Your task to perform on an android device: Go to privacy settings Image 0: 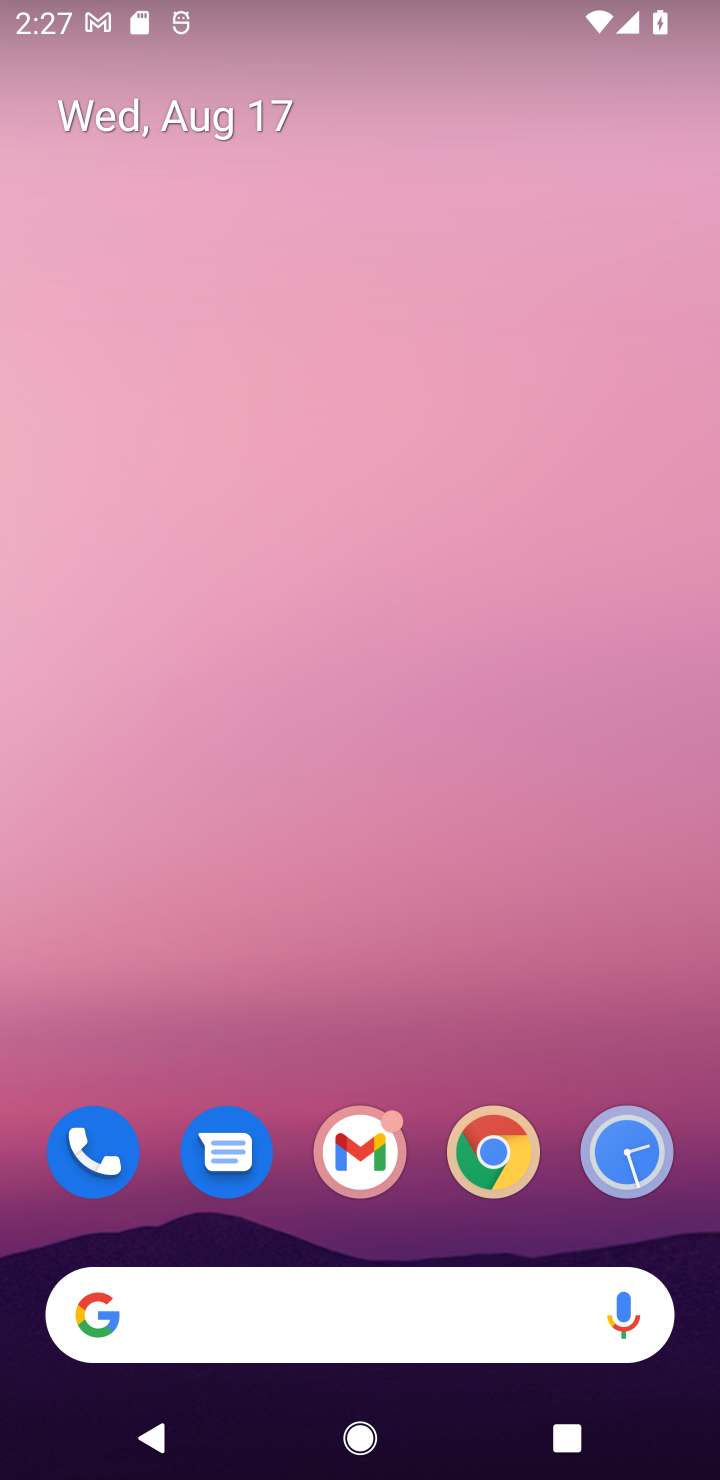
Step 0: drag from (575, 1192) to (291, 72)
Your task to perform on an android device: Go to privacy settings Image 1: 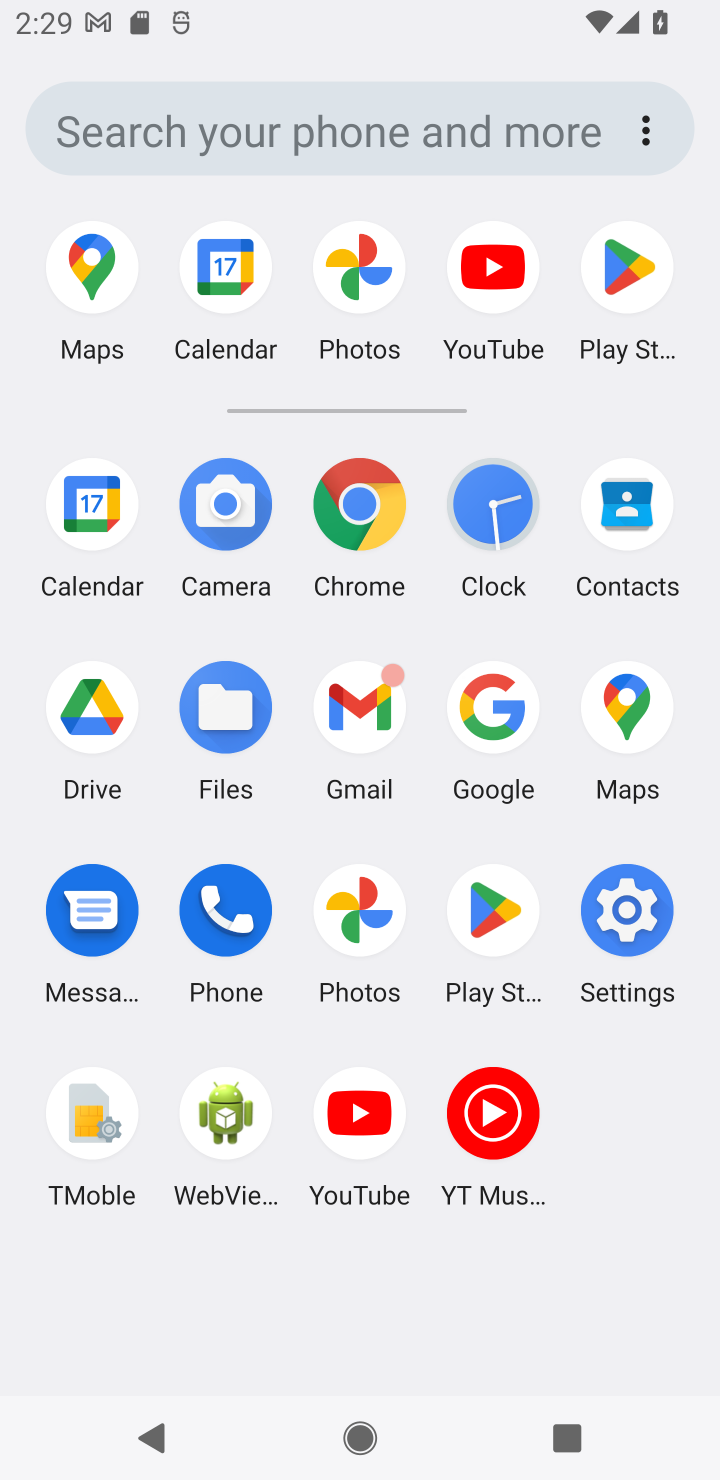
Step 1: click (631, 936)
Your task to perform on an android device: Go to privacy settings Image 2: 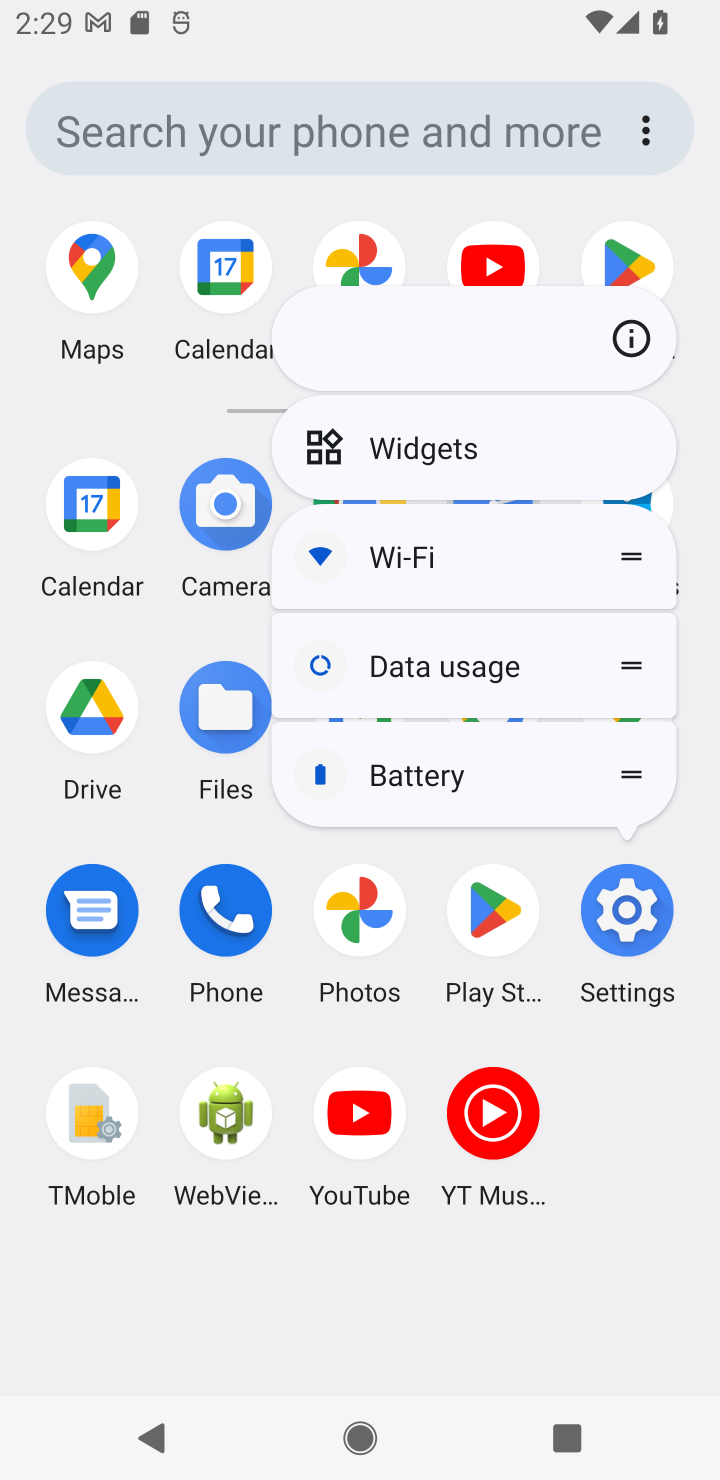
Step 2: click (640, 939)
Your task to perform on an android device: Go to privacy settings Image 3: 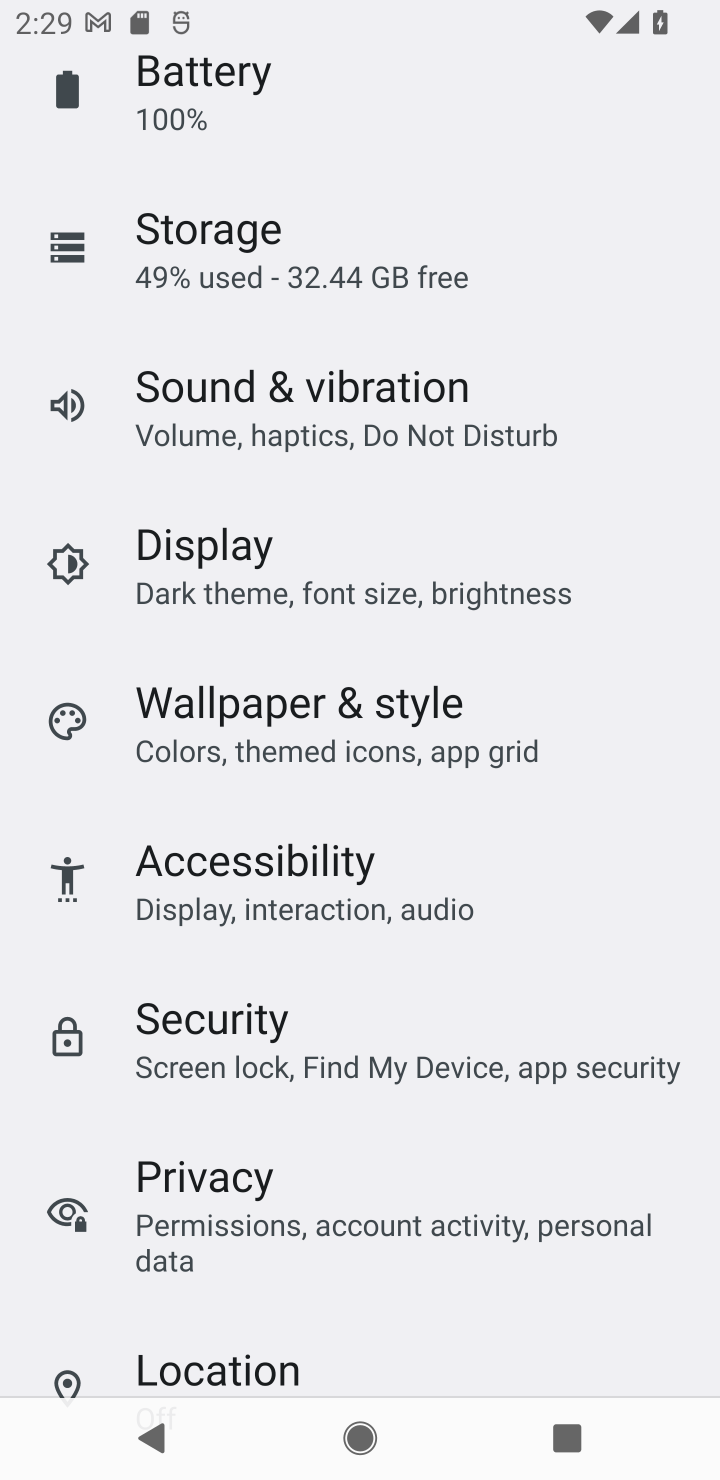
Step 3: click (179, 1193)
Your task to perform on an android device: Go to privacy settings Image 4: 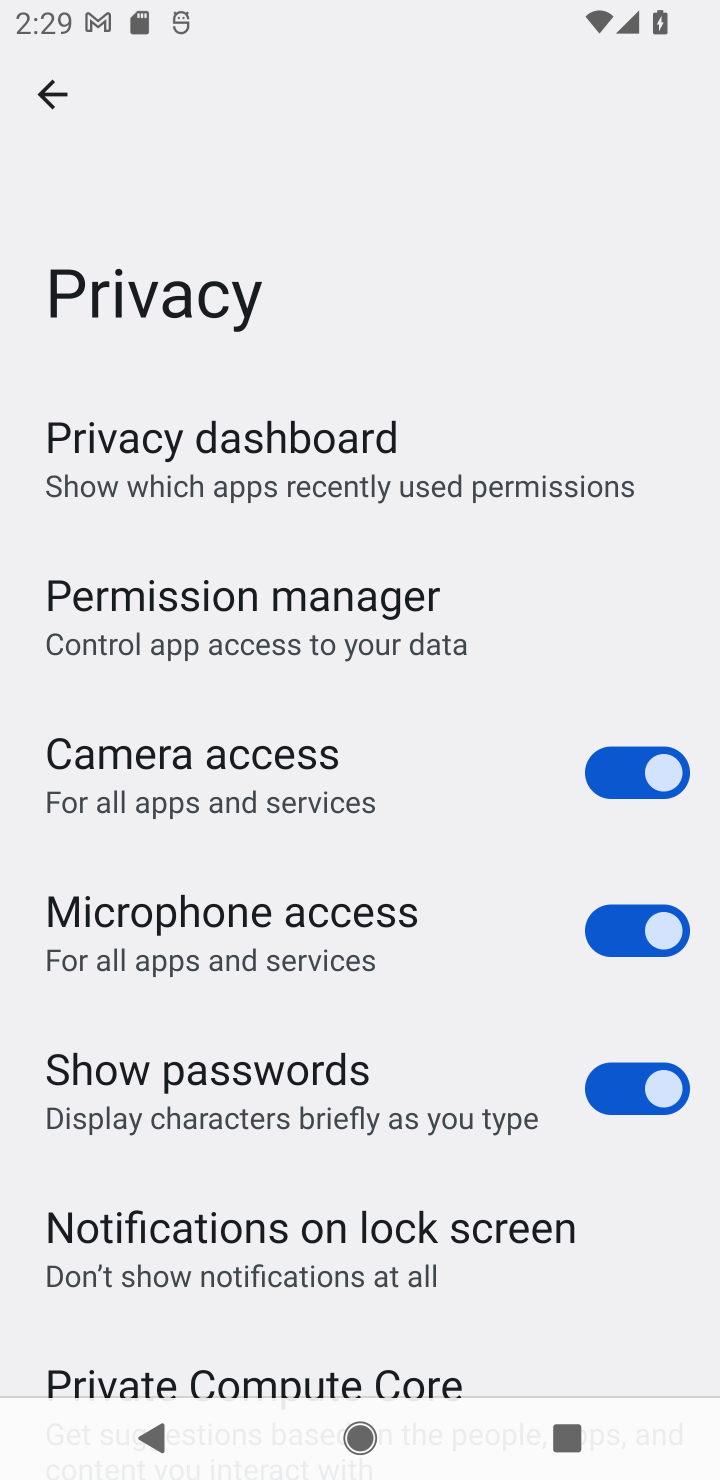
Step 4: task complete